Your task to perform on an android device: open app "ColorNote Notepad Notes" (install if not already installed) Image 0: 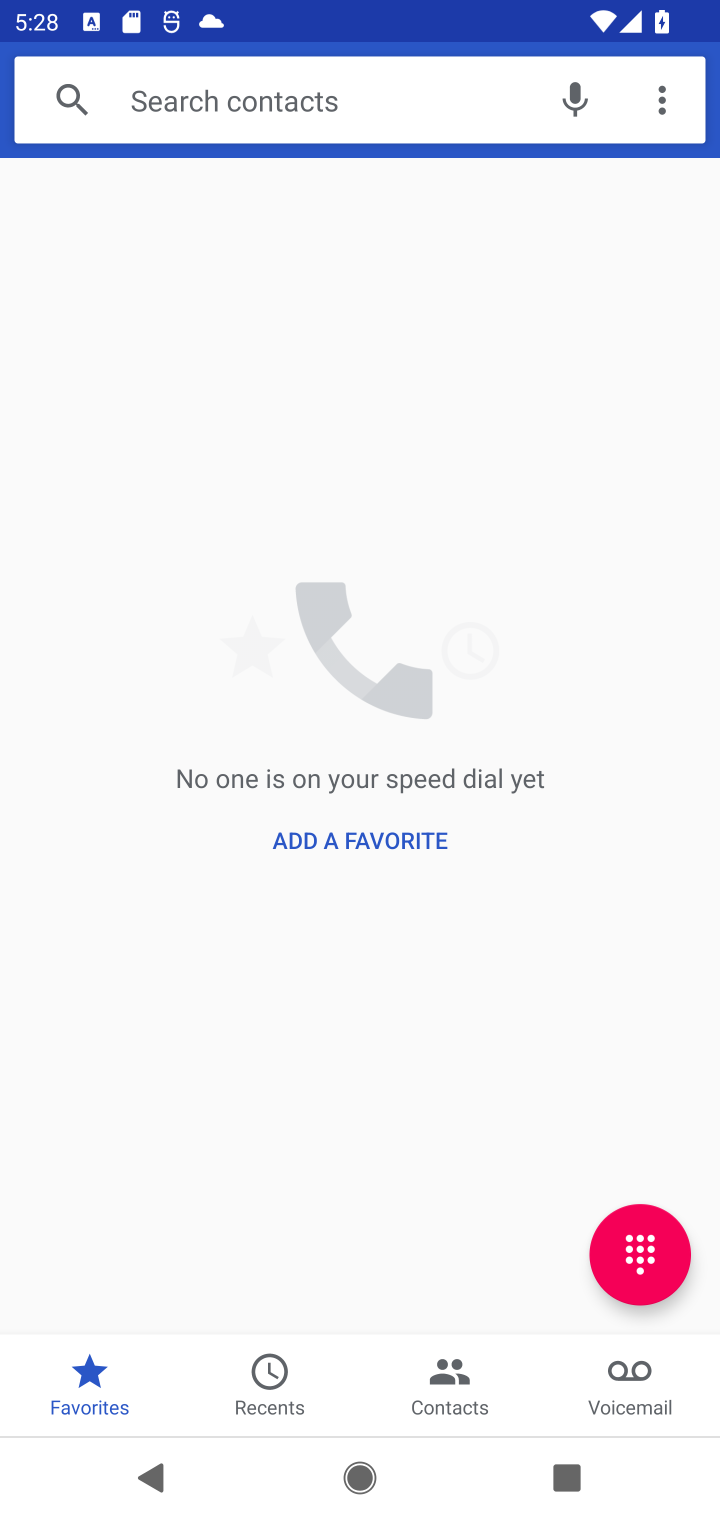
Step 0: press home button
Your task to perform on an android device: open app "ColorNote Notepad Notes" (install if not already installed) Image 1: 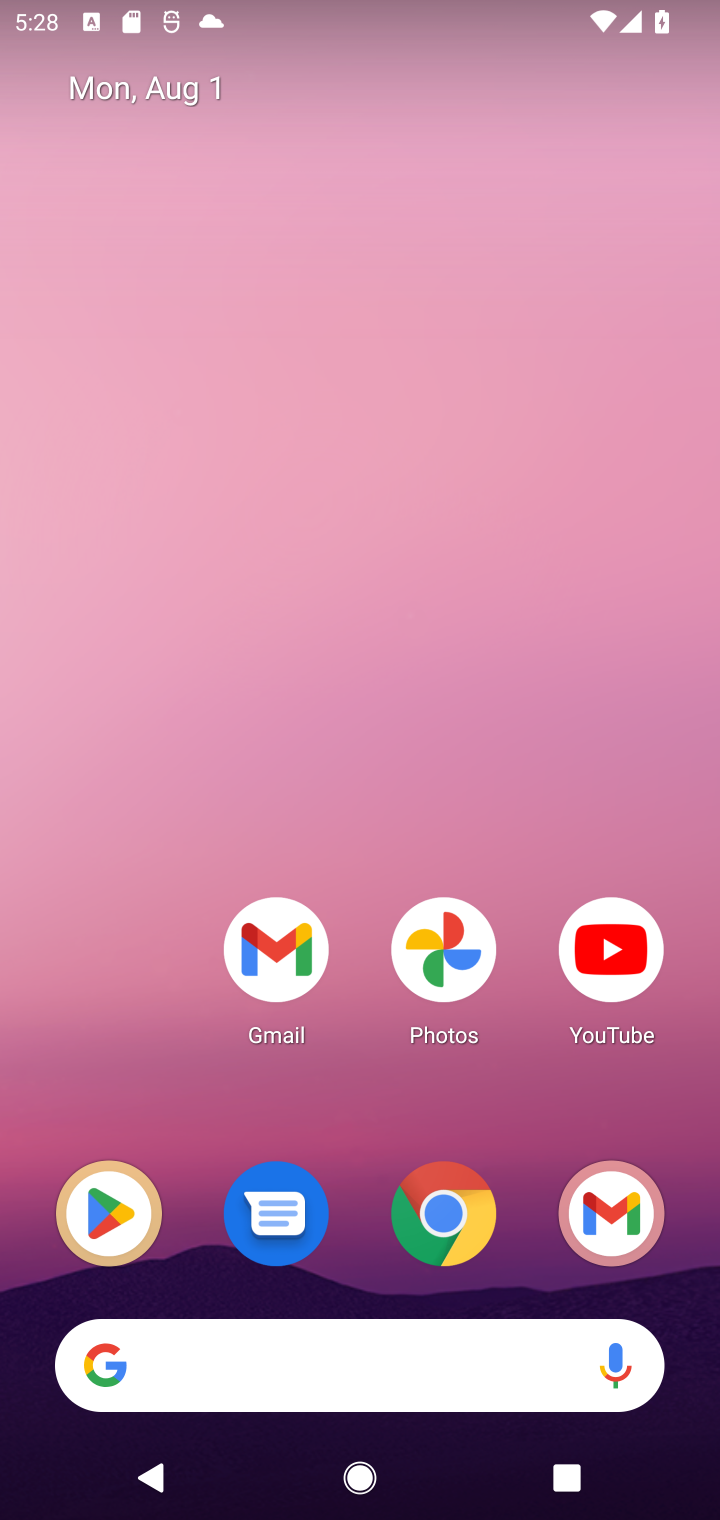
Step 1: drag from (366, 1269) to (434, 182)
Your task to perform on an android device: open app "ColorNote Notepad Notes" (install if not already installed) Image 2: 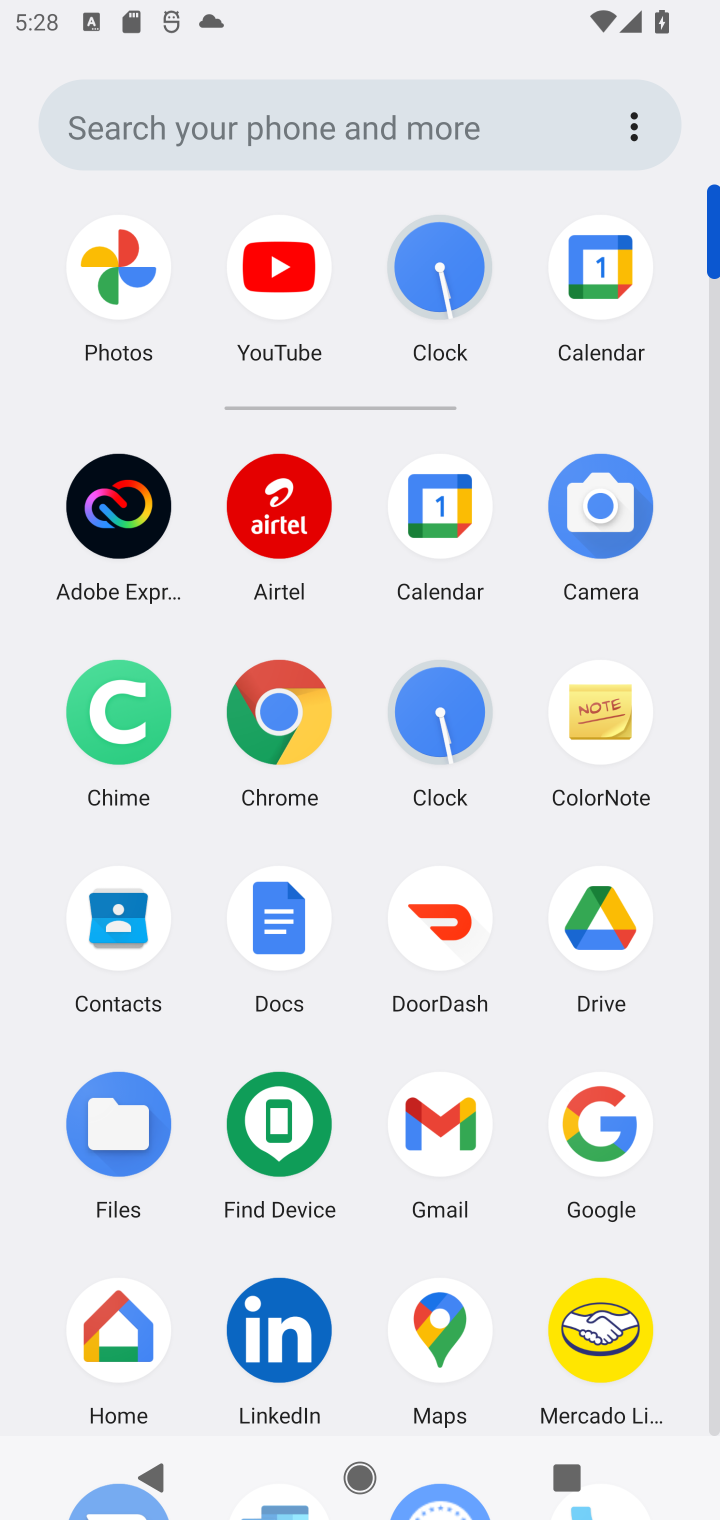
Step 2: drag from (375, 1132) to (395, 340)
Your task to perform on an android device: open app "ColorNote Notepad Notes" (install if not already installed) Image 3: 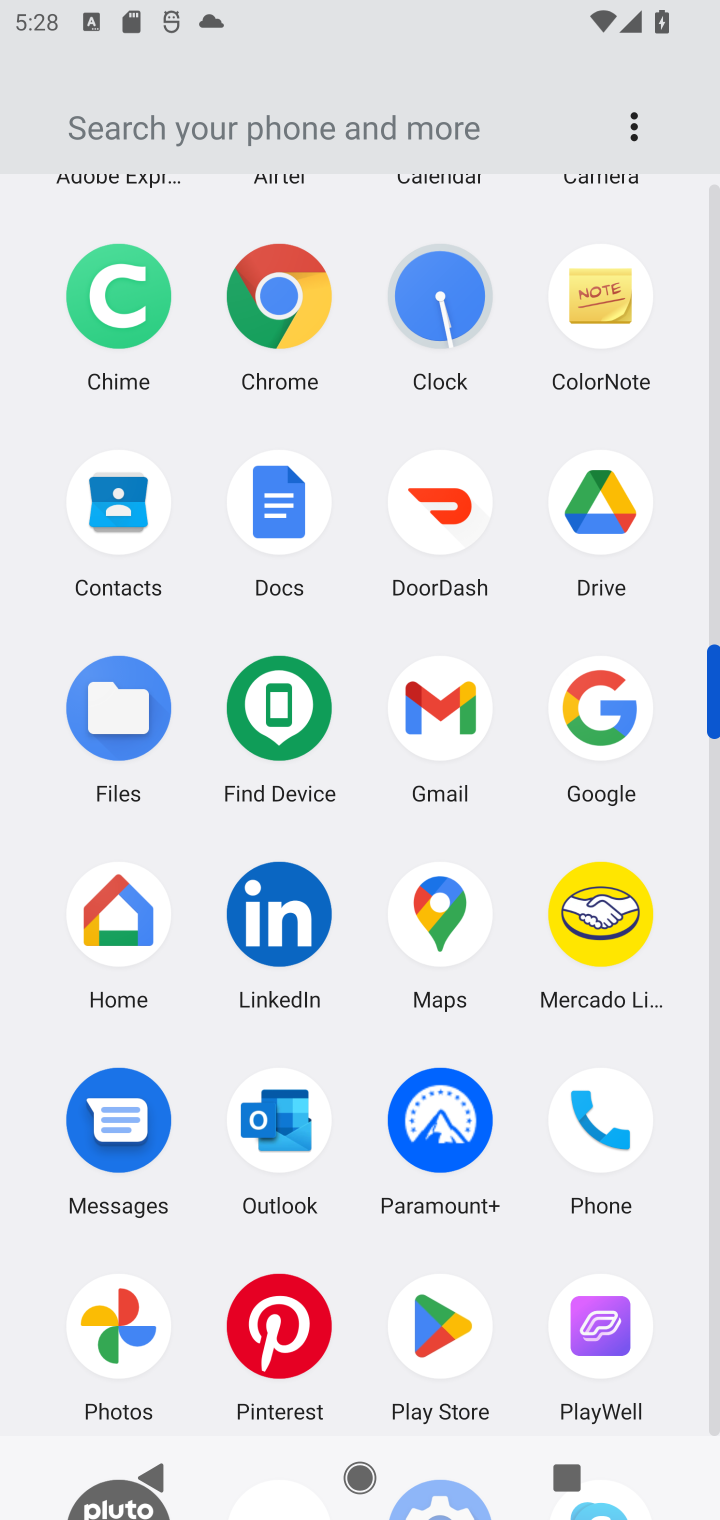
Step 3: click (454, 1338)
Your task to perform on an android device: open app "ColorNote Notepad Notes" (install if not already installed) Image 4: 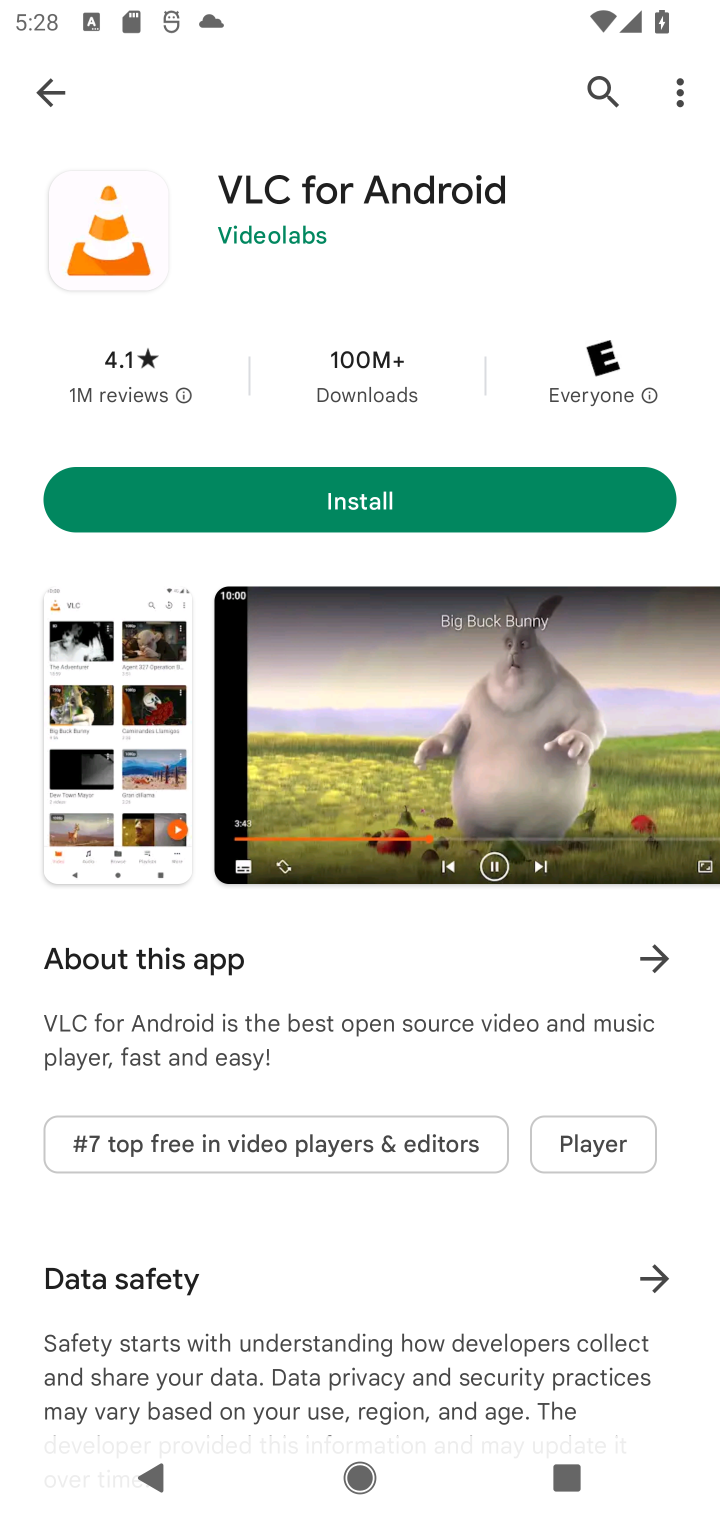
Step 4: click (594, 96)
Your task to perform on an android device: open app "ColorNote Notepad Notes" (install if not already installed) Image 5: 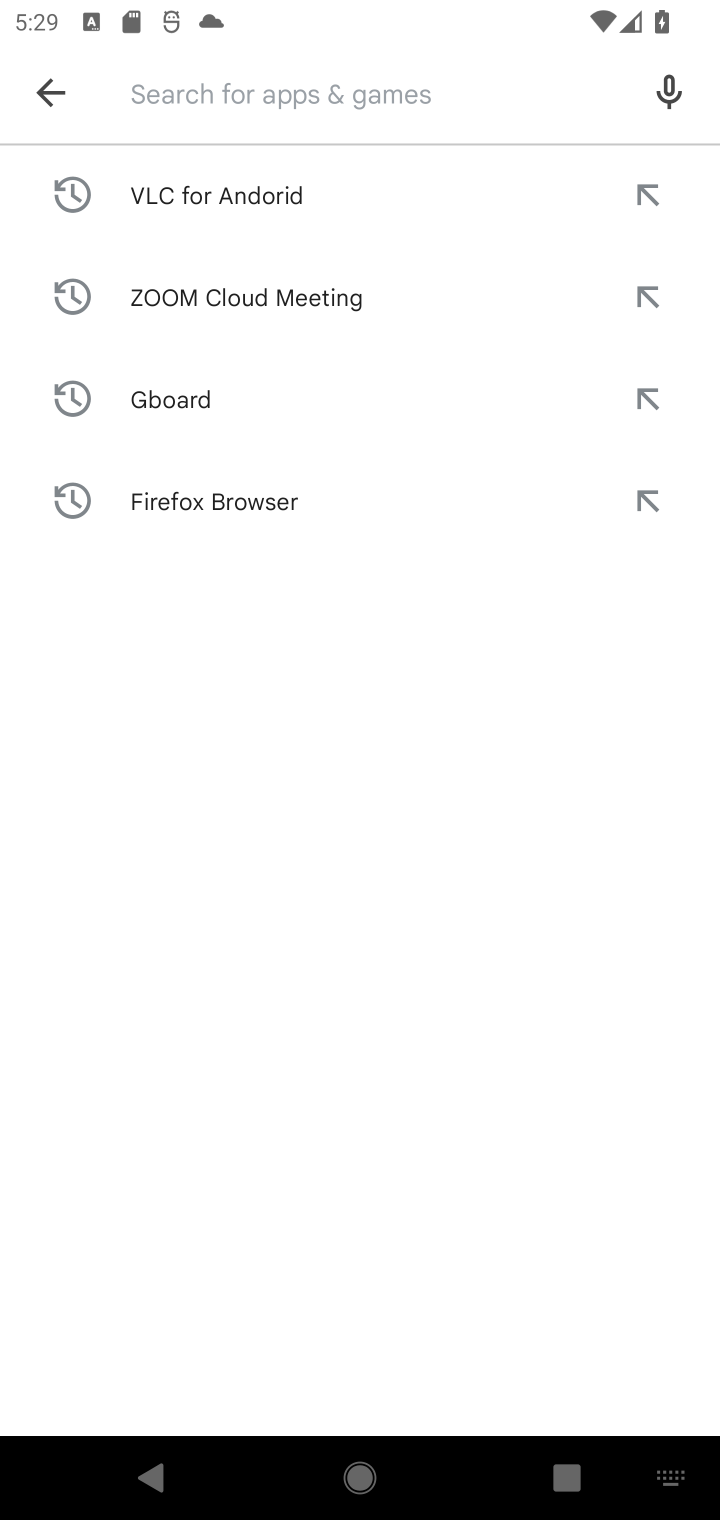
Step 5: type "ColorNote Notes"
Your task to perform on an android device: open app "ColorNote Notepad Notes" (install if not already installed) Image 6: 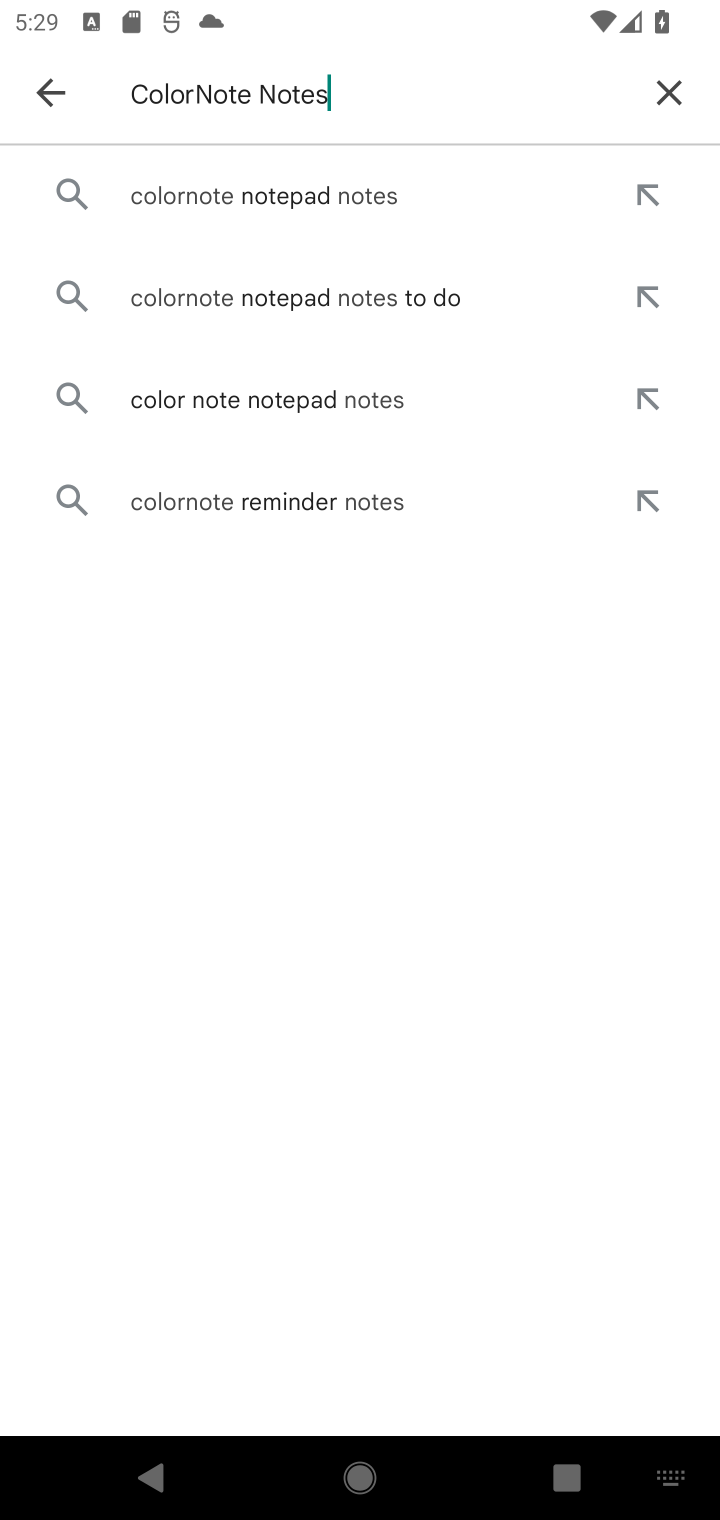
Step 6: click (382, 203)
Your task to perform on an android device: open app "ColorNote Notepad Notes" (install if not already installed) Image 7: 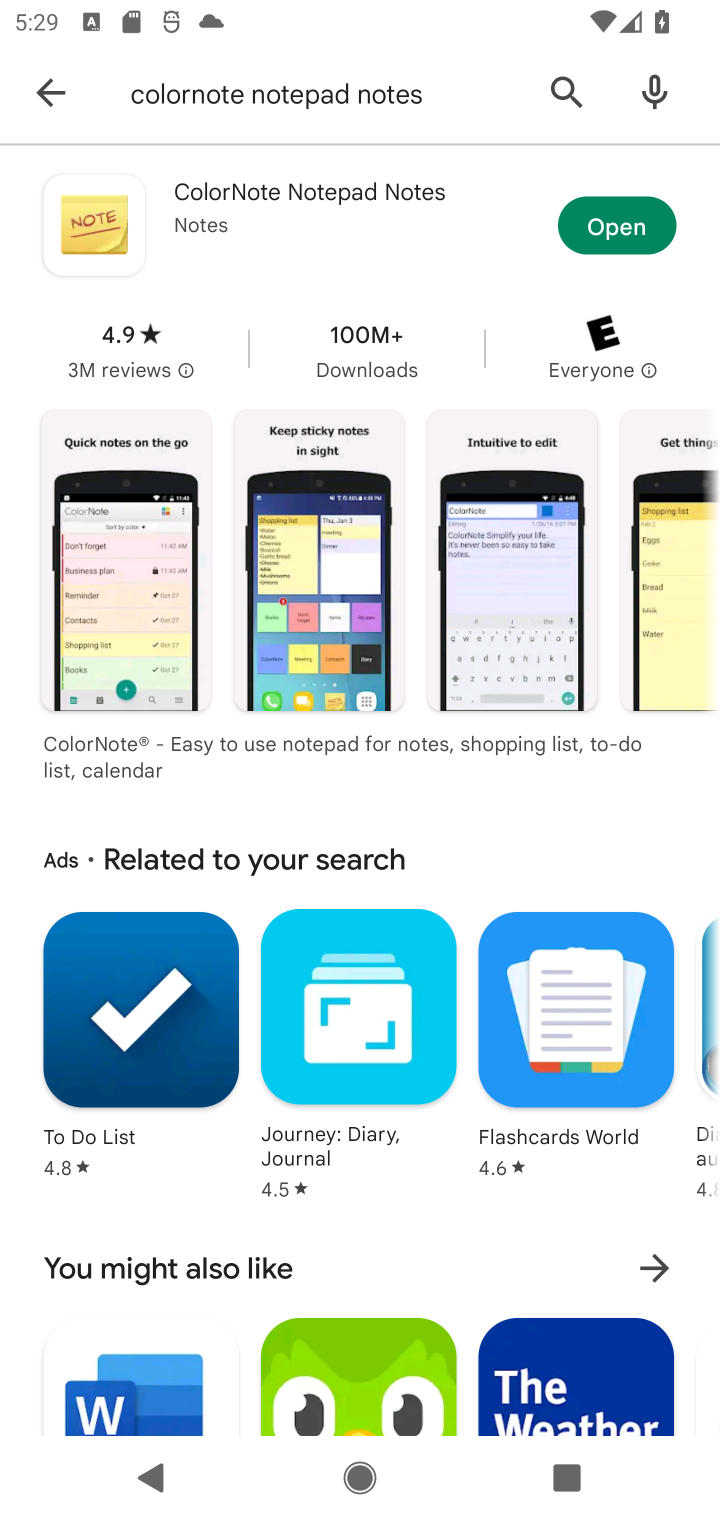
Step 7: click (613, 221)
Your task to perform on an android device: open app "ColorNote Notepad Notes" (install if not already installed) Image 8: 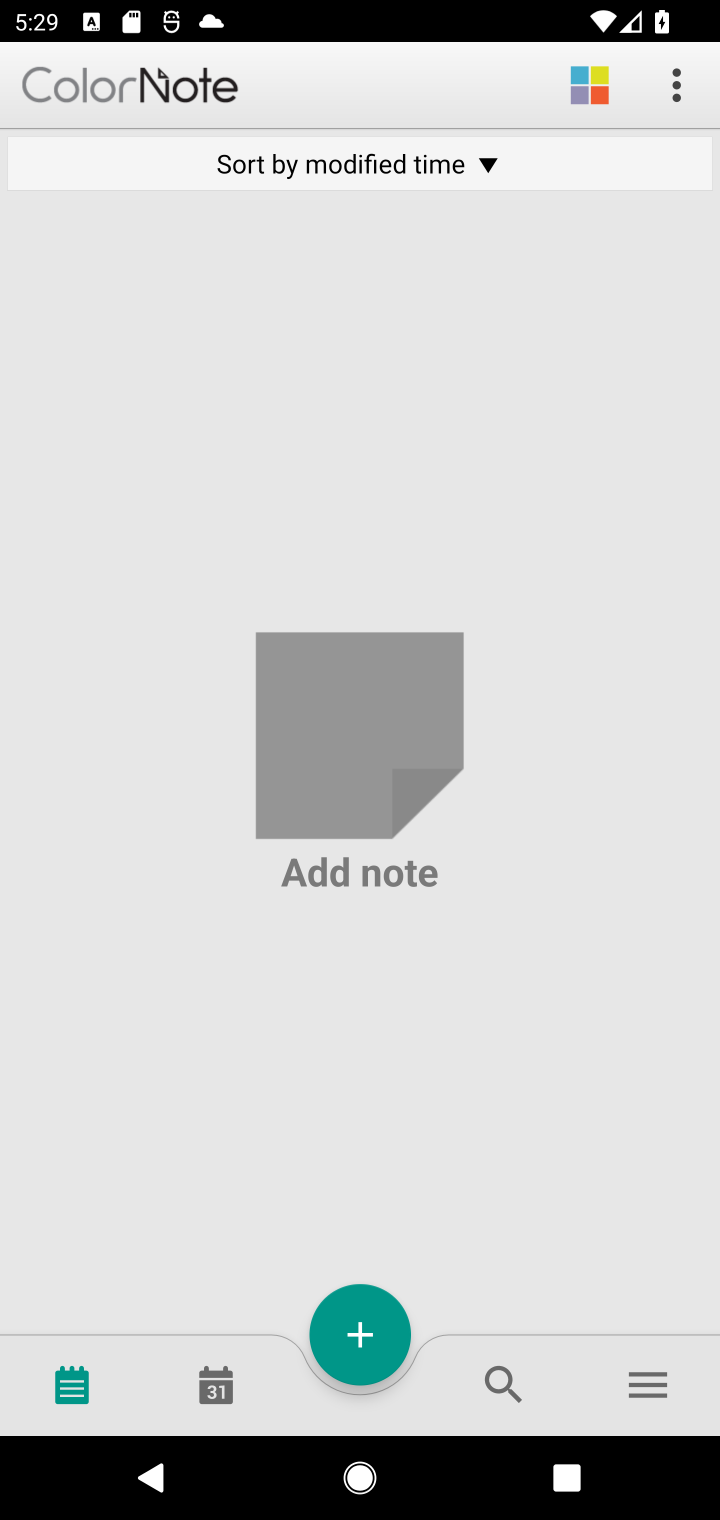
Step 8: task complete